Your task to perform on an android device: turn pop-ups off in chrome Image 0: 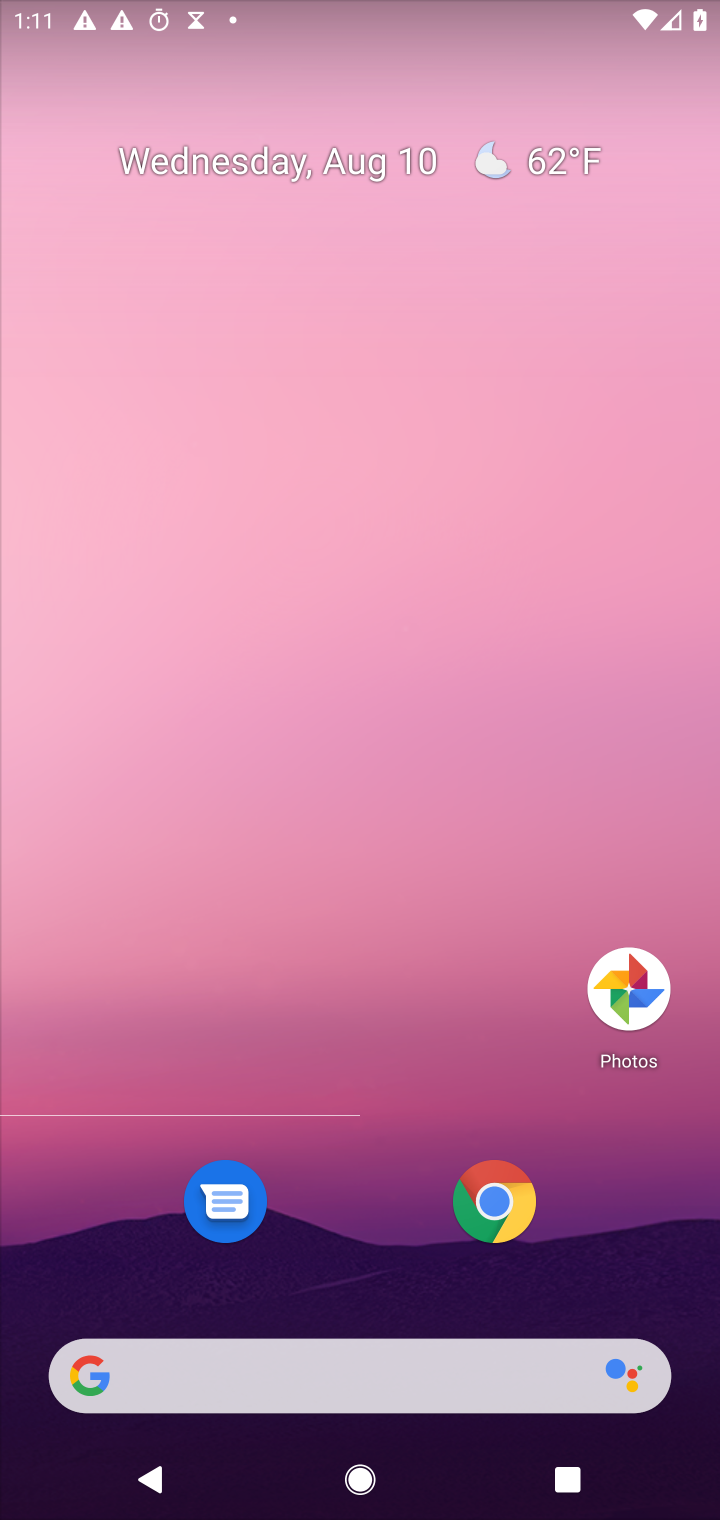
Step 0: press home button
Your task to perform on an android device: turn pop-ups off in chrome Image 1: 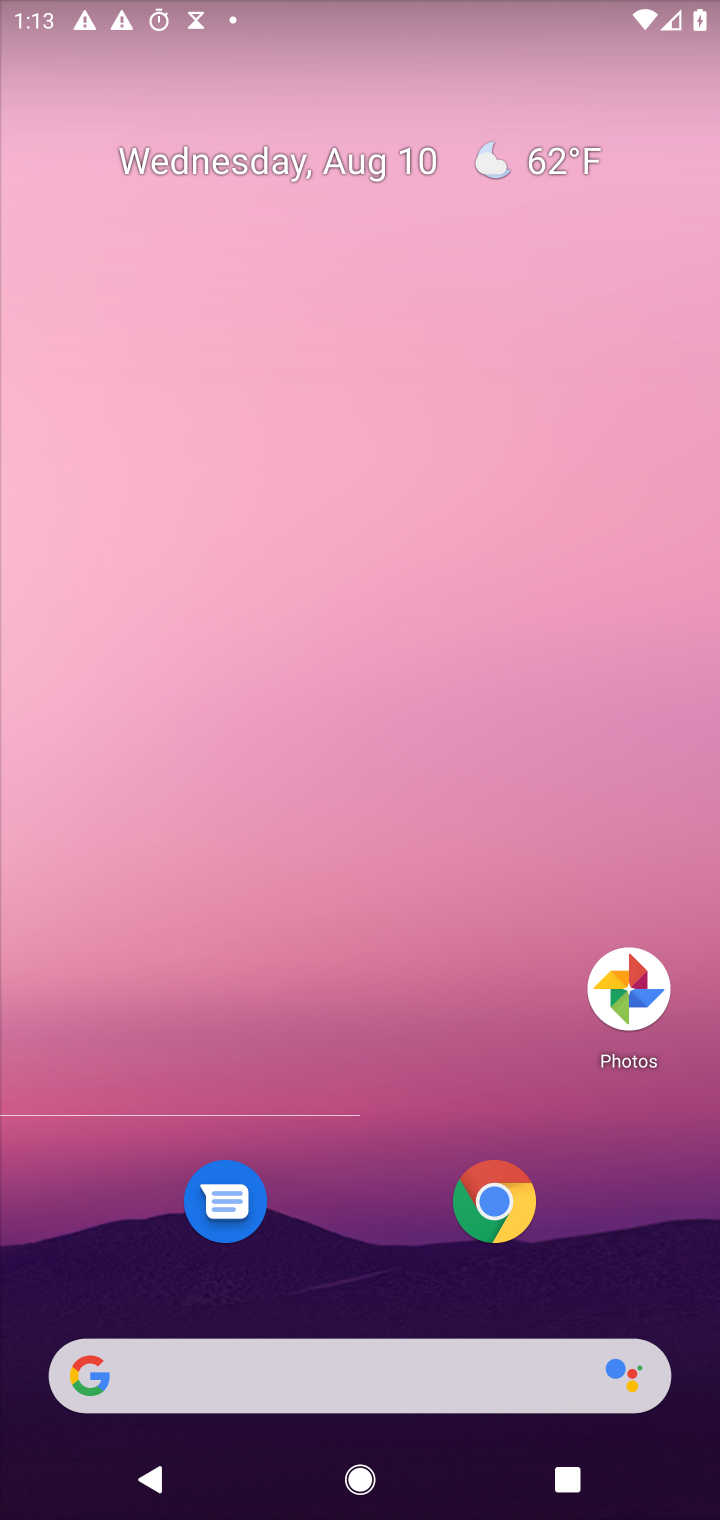
Step 1: click (518, 1194)
Your task to perform on an android device: turn pop-ups off in chrome Image 2: 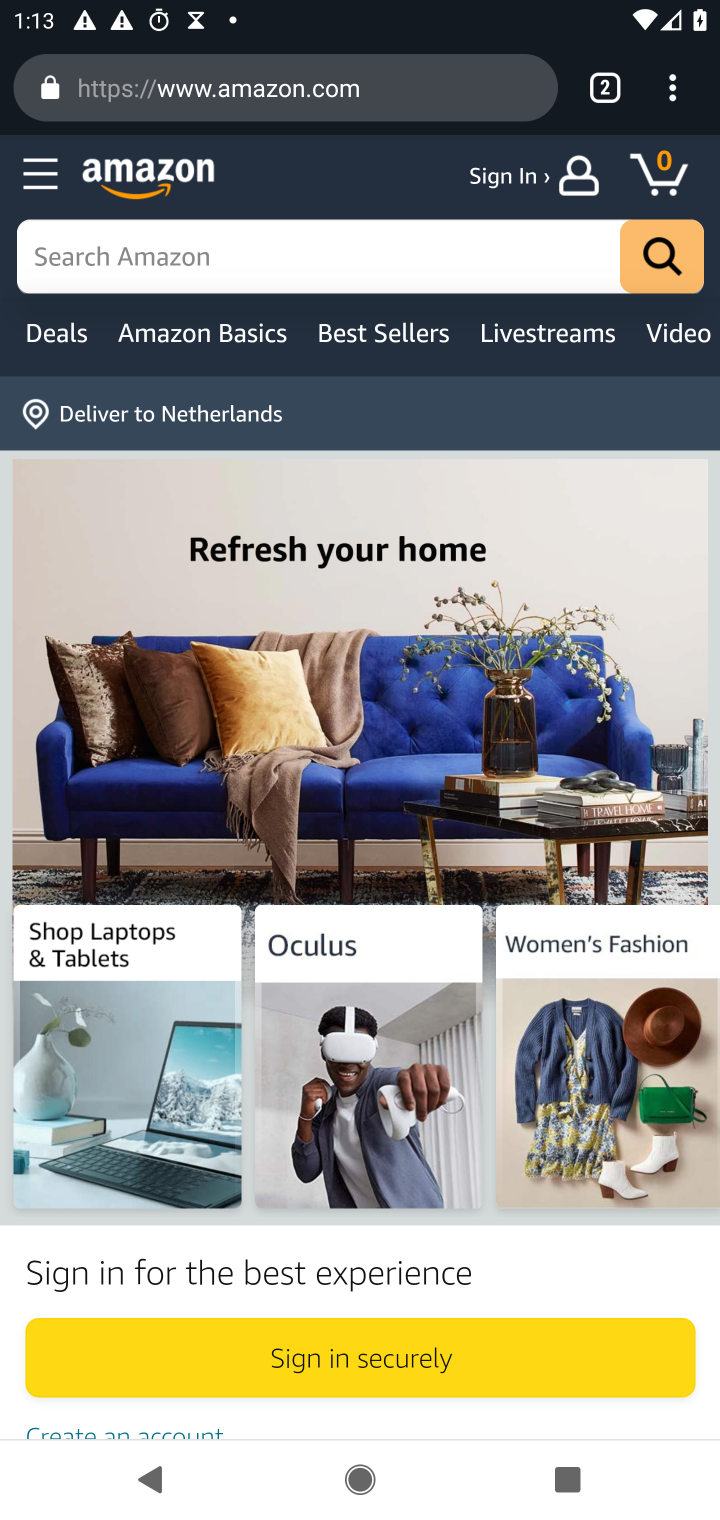
Step 2: click (669, 91)
Your task to perform on an android device: turn pop-ups off in chrome Image 3: 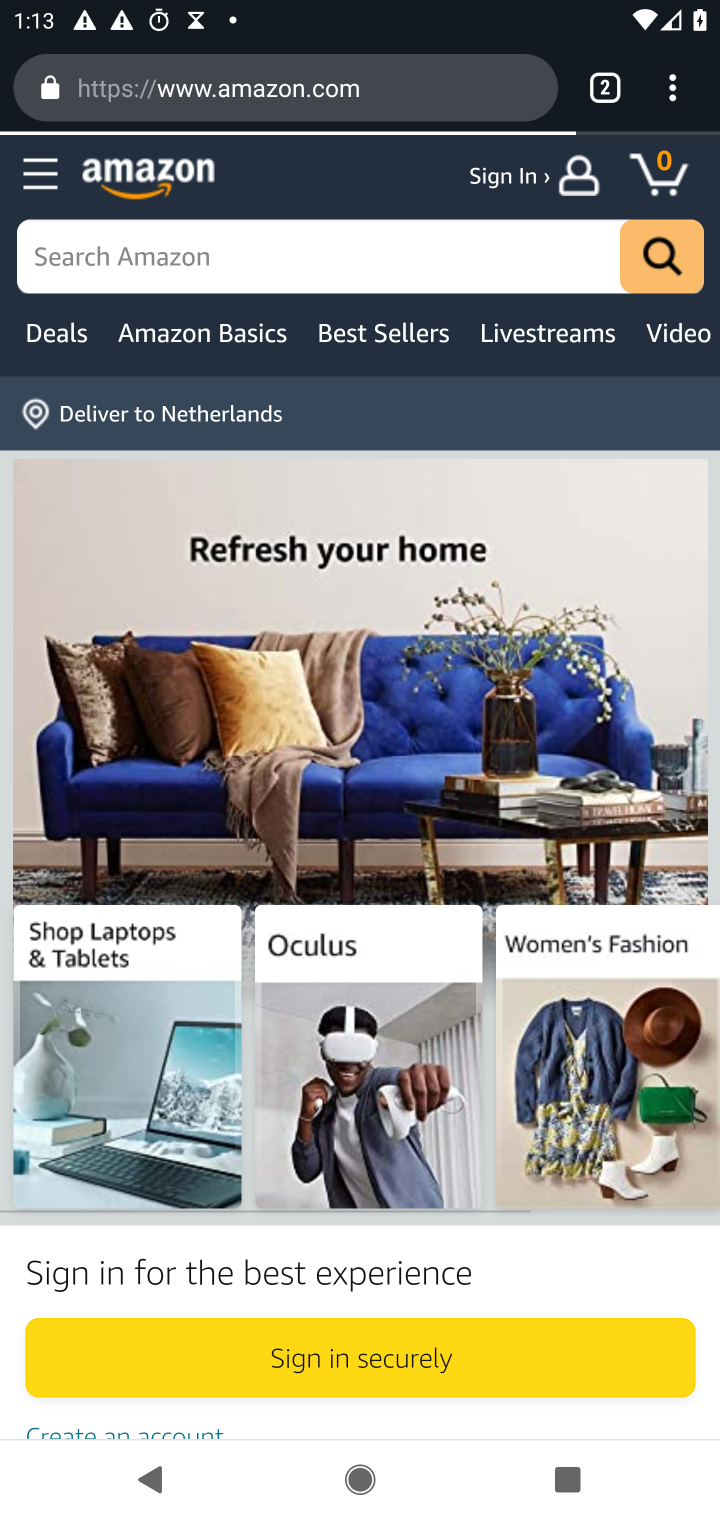
Step 3: drag from (669, 91) to (326, 1062)
Your task to perform on an android device: turn pop-ups off in chrome Image 4: 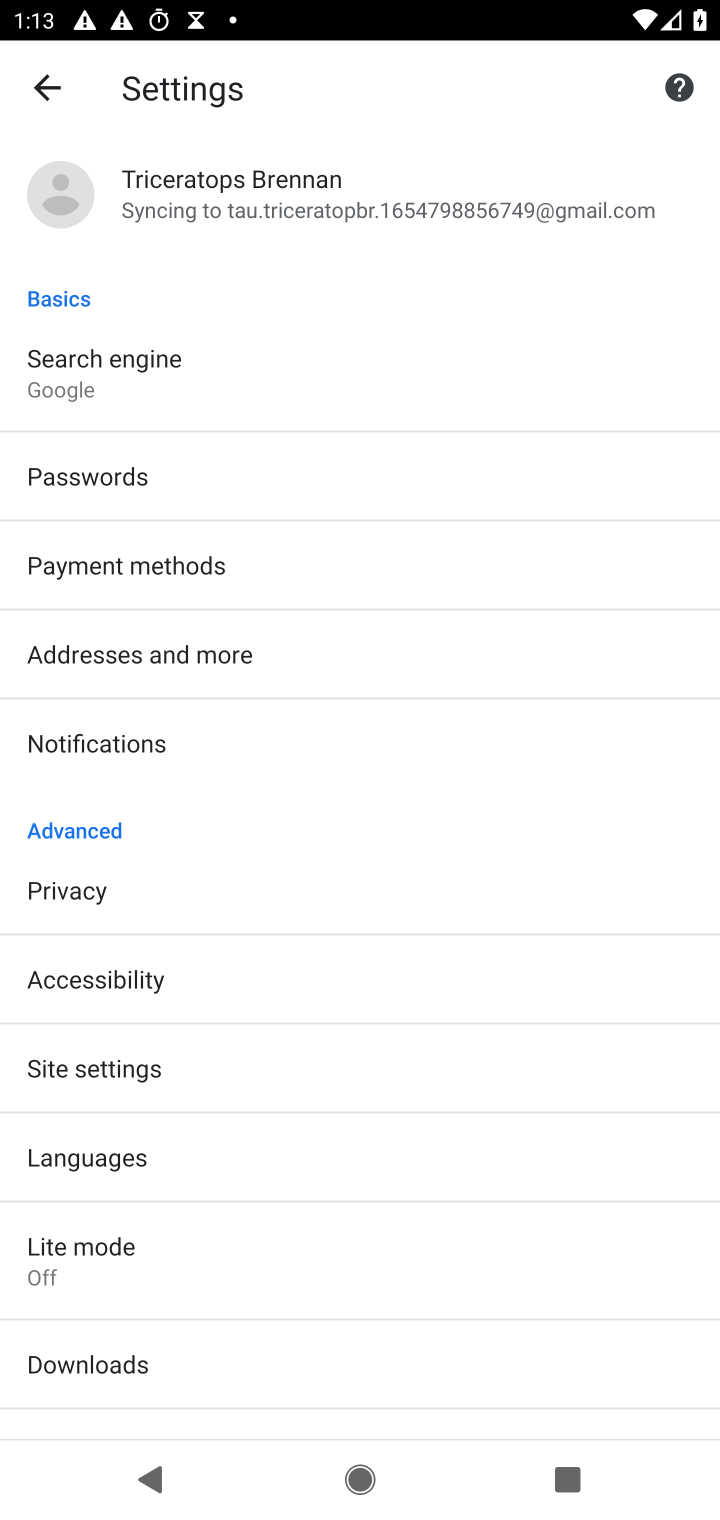
Step 4: click (124, 1070)
Your task to perform on an android device: turn pop-ups off in chrome Image 5: 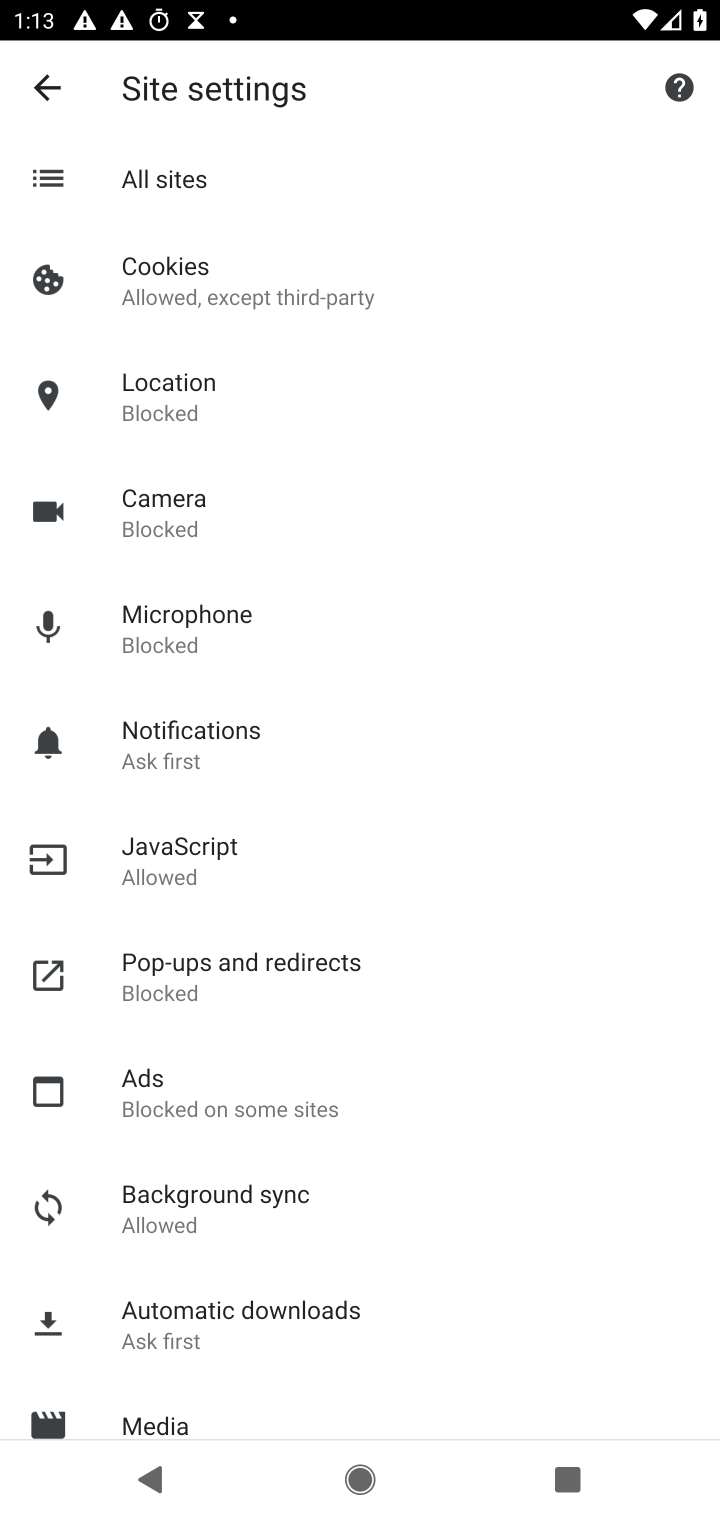
Step 5: click (249, 972)
Your task to perform on an android device: turn pop-ups off in chrome Image 6: 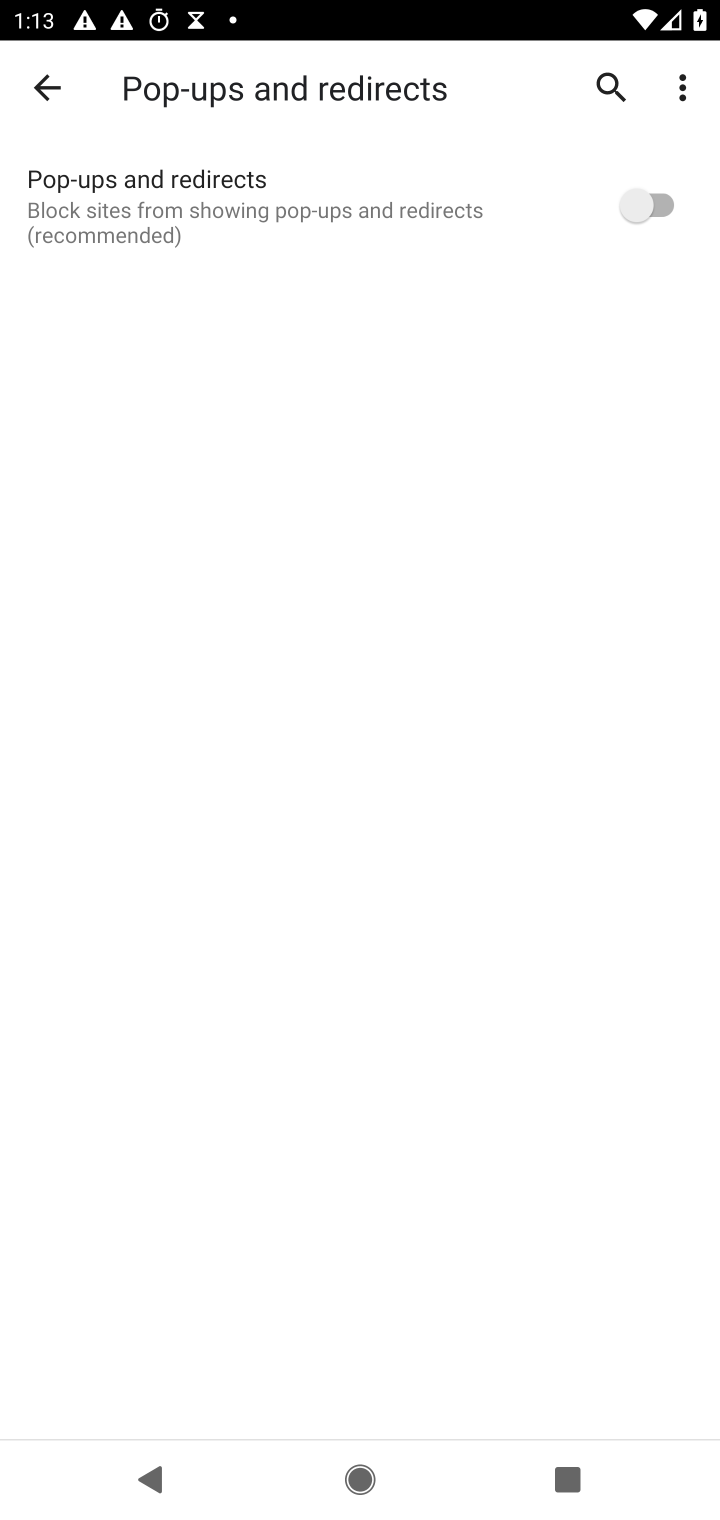
Step 6: task complete